Your task to perform on an android device: toggle wifi Image 0: 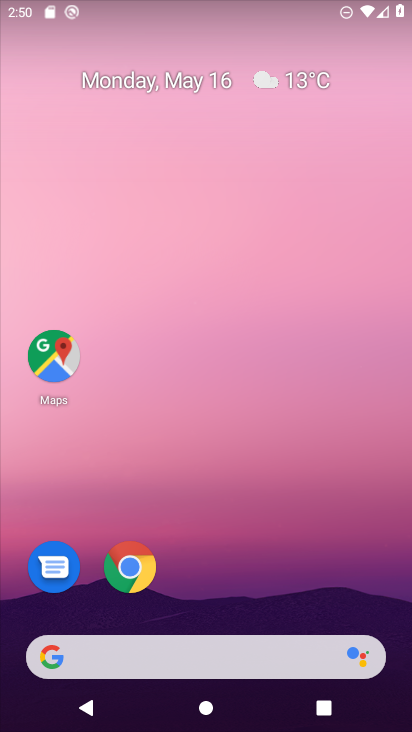
Step 0: drag from (352, 5) to (308, 554)
Your task to perform on an android device: toggle wifi Image 1: 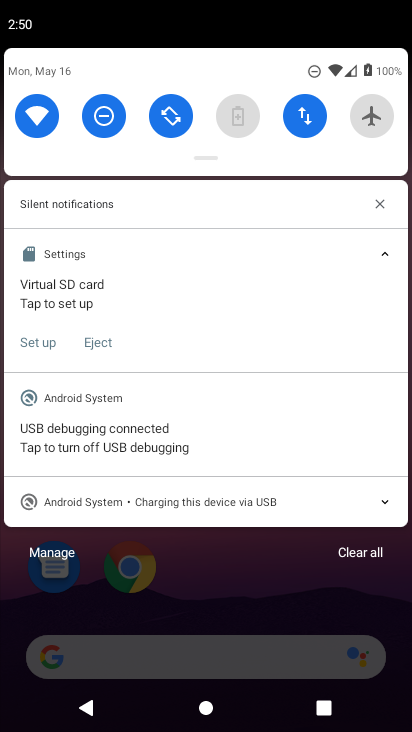
Step 1: click (33, 124)
Your task to perform on an android device: toggle wifi Image 2: 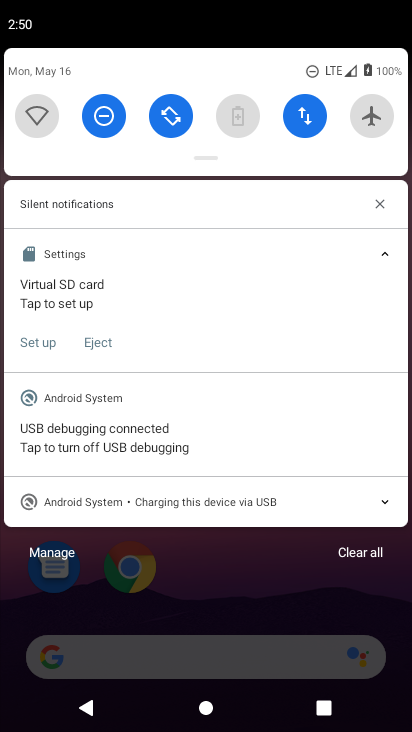
Step 2: task complete